Your task to perform on an android device: turn on javascript in the chrome app Image 0: 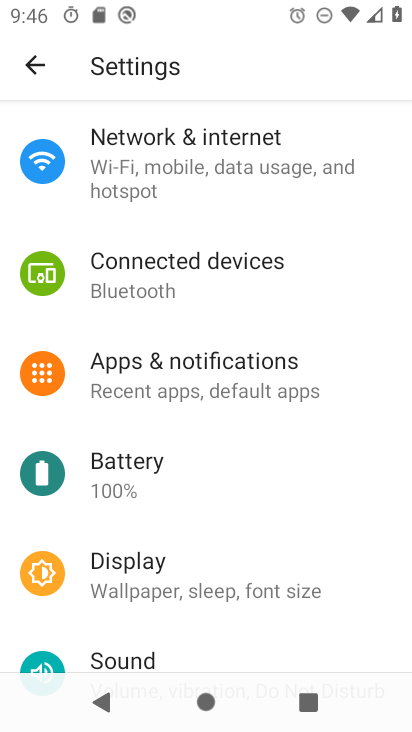
Step 0: press home button
Your task to perform on an android device: turn on javascript in the chrome app Image 1: 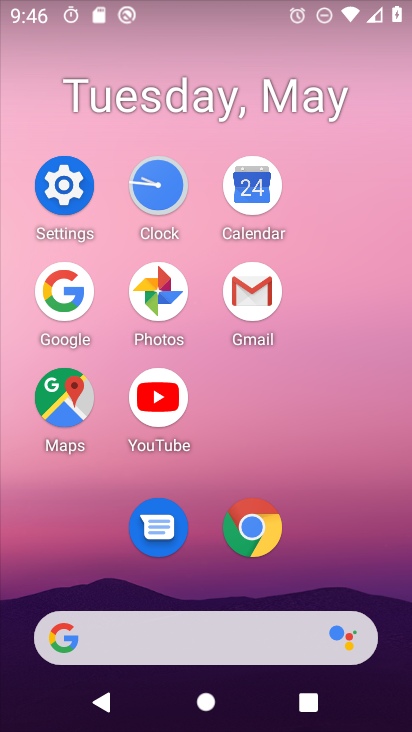
Step 1: click (245, 530)
Your task to perform on an android device: turn on javascript in the chrome app Image 2: 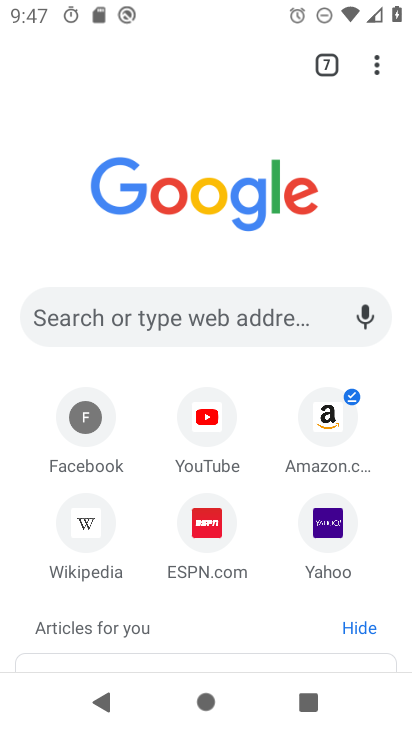
Step 2: click (394, 56)
Your task to perform on an android device: turn on javascript in the chrome app Image 3: 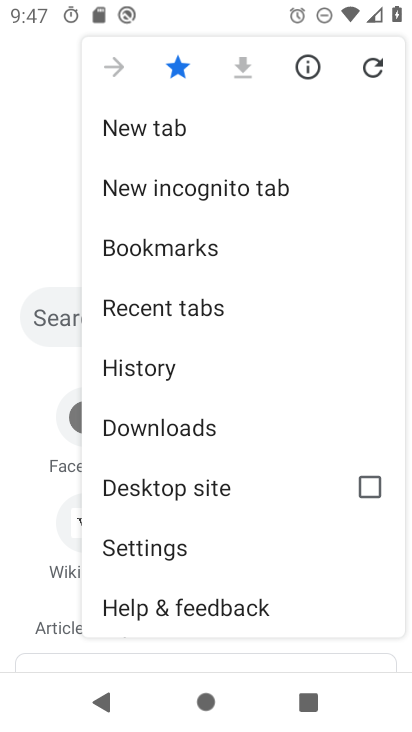
Step 3: drag from (210, 522) to (252, 132)
Your task to perform on an android device: turn on javascript in the chrome app Image 4: 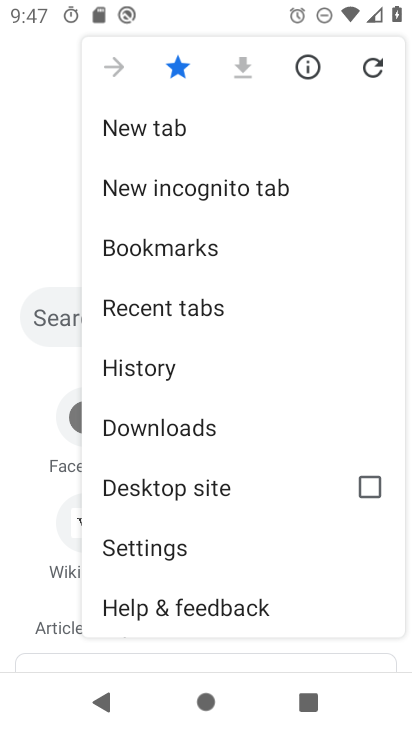
Step 4: drag from (173, 585) to (224, 236)
Your task to perform on an android device: turn on javascript in the chrome app Image 5: 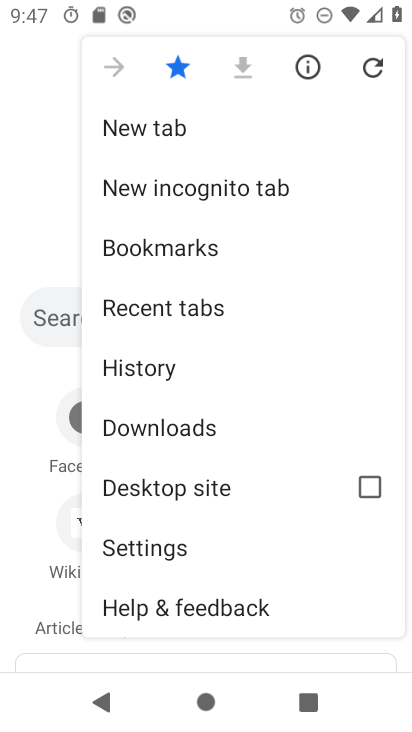
Step 5: click (181, 567)
Your task to perform on an android device: turn on javascript in the chrome app Image 6: 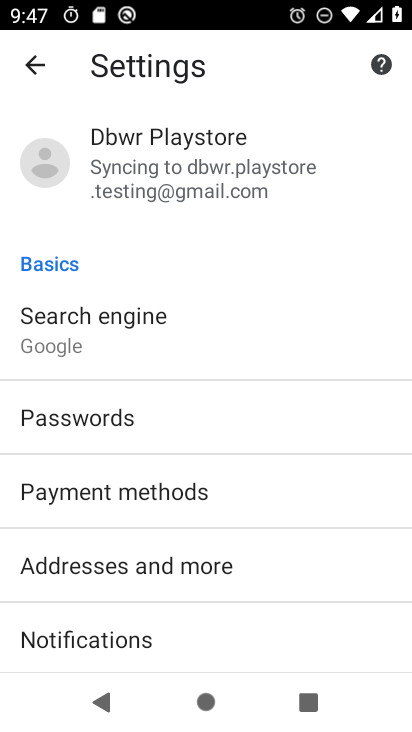
Step 6: drag from (271, 612) to (252, 225)
Your task to perform on an android device: turn on javascript in the chrome app Image 7: 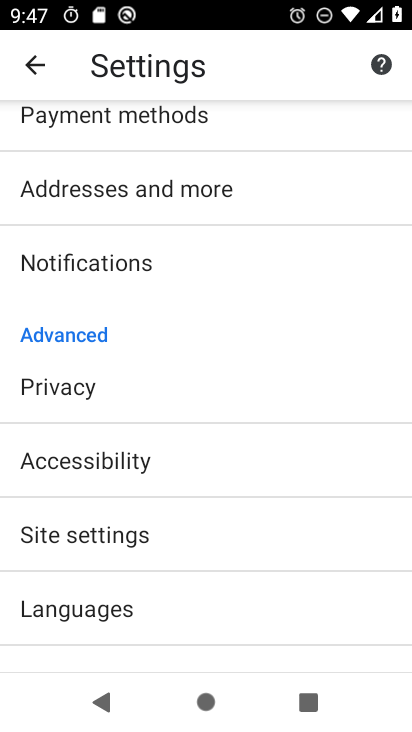
Step 7: drag from (241, 582) to (229, 230)
Your task to perform on an android device: turn on javascript in the chrome app Image 8: 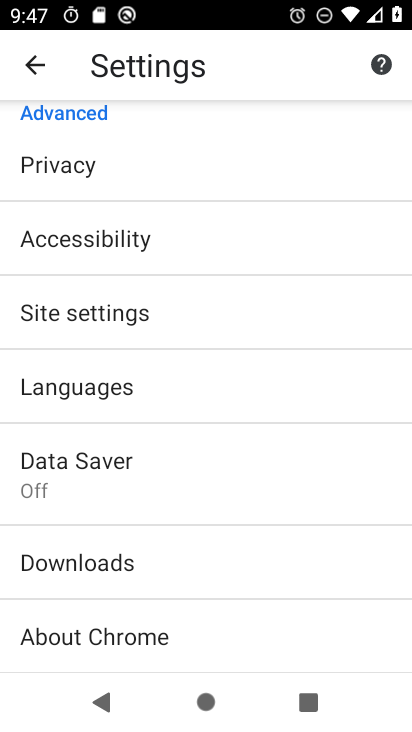
Step 8: click (160, 318)
Your task to perform on an android device: turn on javascript in the chrome app Image 9: 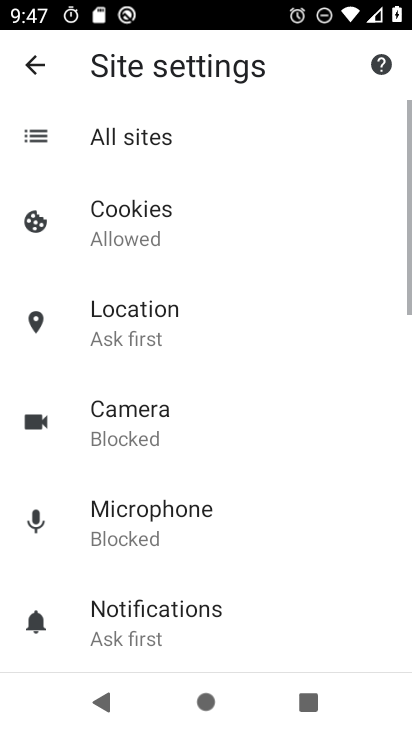
Step 9: drag from (242, 643) to (262, 260)
Your task to perform on an android device: turn on javascript in the chrome app Image 10: 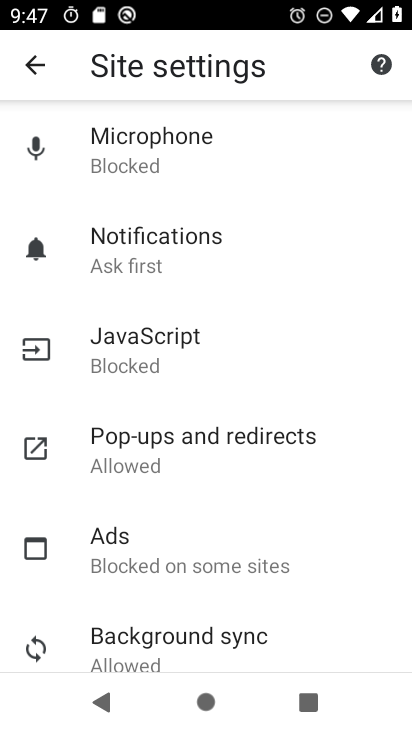
Step 10: click (215, 349)
Your task to perform on an android device: turn on javascript in the chrome app Image 11: 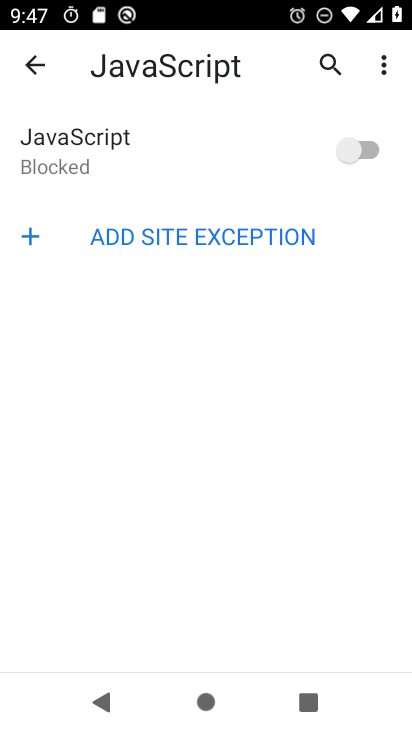
Step 11: click (342, 159)
Your task to perform on an android device: turn on javascript in the chrome app Image 12: 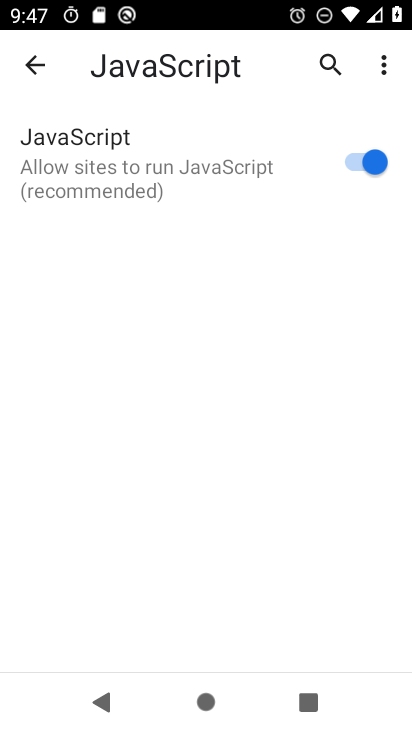
Step 12: task complete